Your task to perform on an android device: change notification settings in the gmail app Image 0: 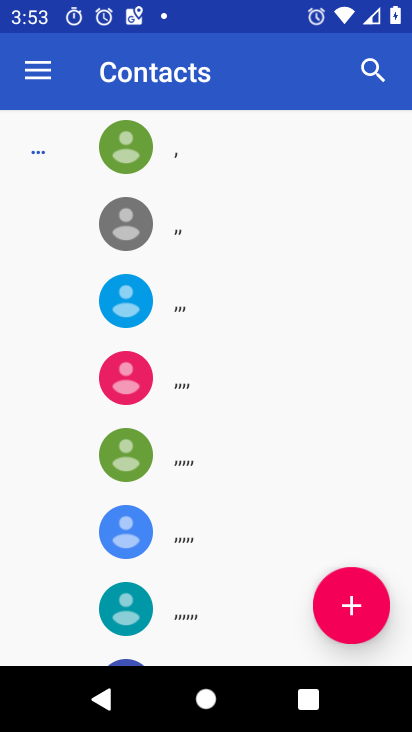
Step 0: press home button
Your task to perform on an android device: change notification settings in the gmail app Image 1: 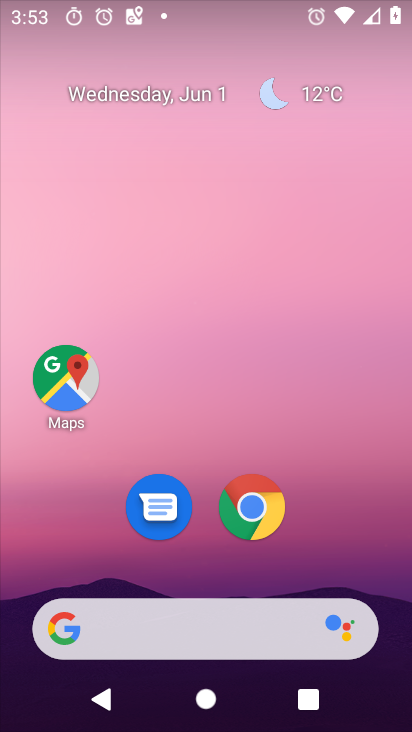
Step 1: drag from (353, 582) to (340, 6)
Your task to perform on an android device: change notification settings in the gmail app Image 2: 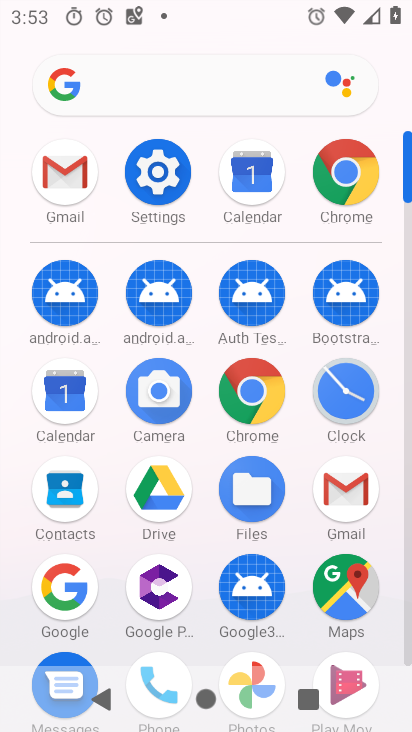
Step 2: click (61, 176)
Your task to perform on an android device: change notification settings in the gmail app Image 3: 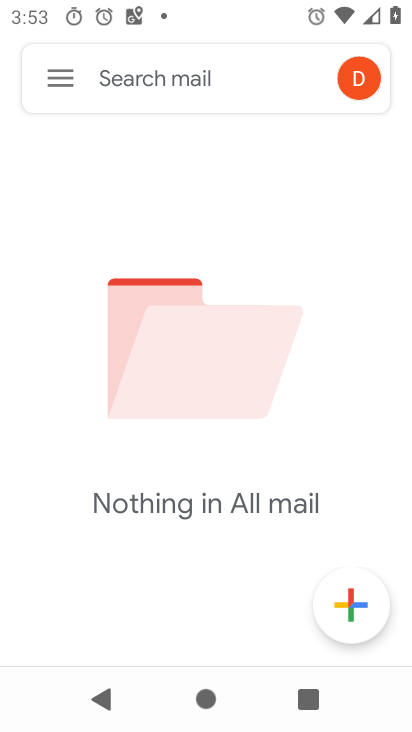
Step 3: click (63, 76)
Your task to perform on an android device: change notification settings in the gmail app Image 4: 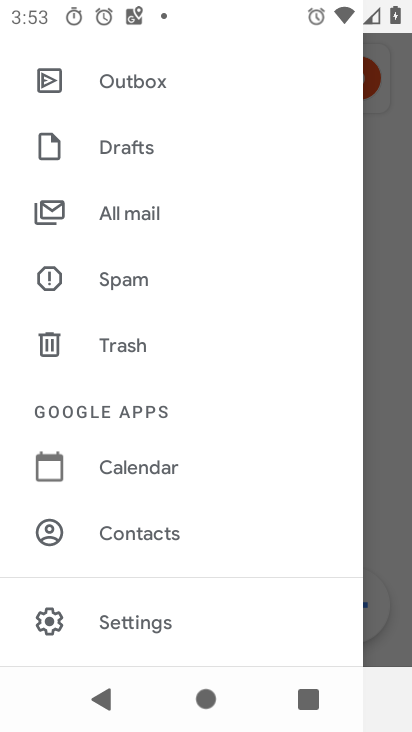
Step 4: click (148, 612)
Your task to perform on an android device: change notification settings in the gmail app Image 5: 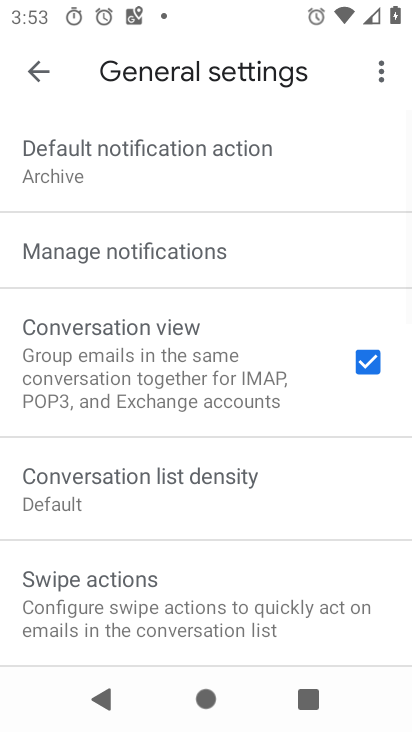
Step 5: click (93, 250)
Your task to perform on an android device: change notification settings in the gmail app Image 6: 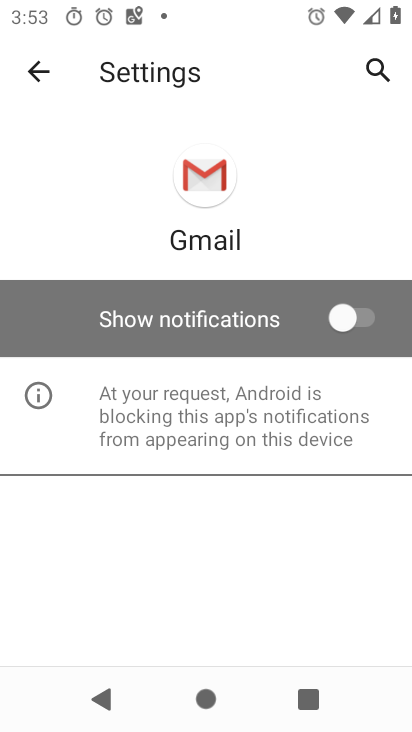
Step 6: click (343, 325)
Your task to perform on an android device: change notification settings in the gmail app Image 7: 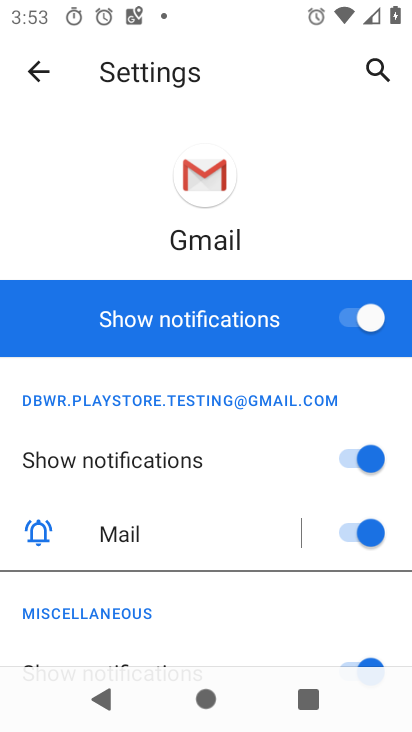
Step 7: task complete